Your task to perform on an android device: Open Chrome and go to settings Image 0: 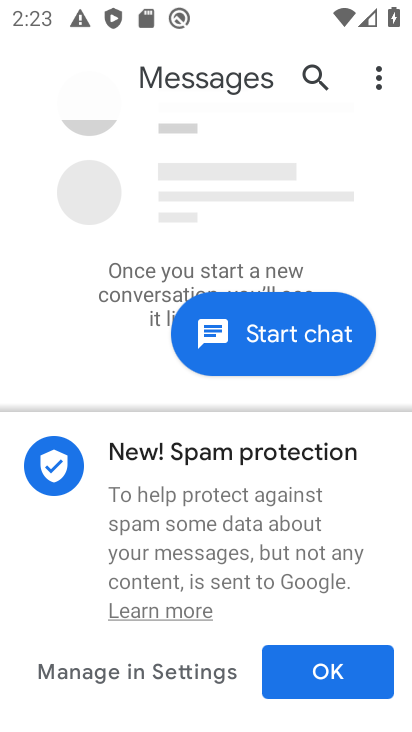
Step 0: press home button
Your task to perform on an android device: Open Chrome and go to settings Image 1: 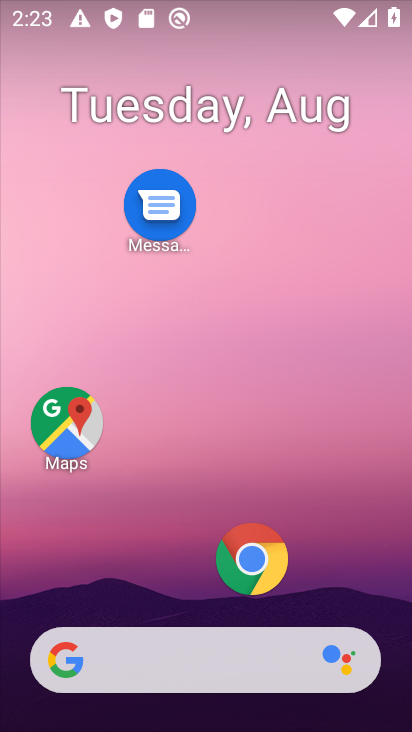
Step 1: click (253, 558)
Your task to perform on an android device: Open Chrome and go to settings Image 2: 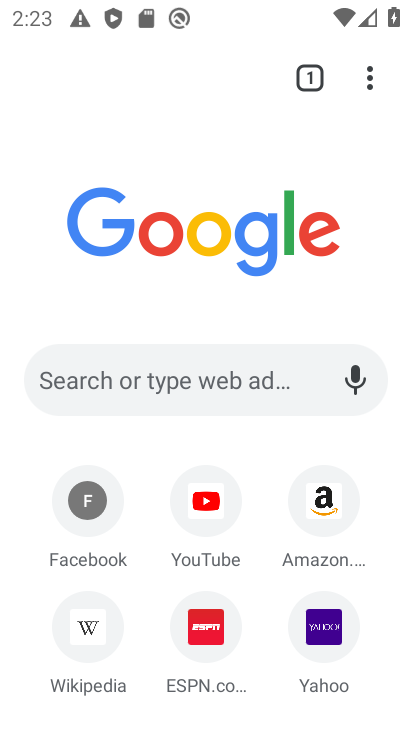
Step 2: click (373, 77)
Your task to perform on an android device: Open Chrome and go to settings Image 3: 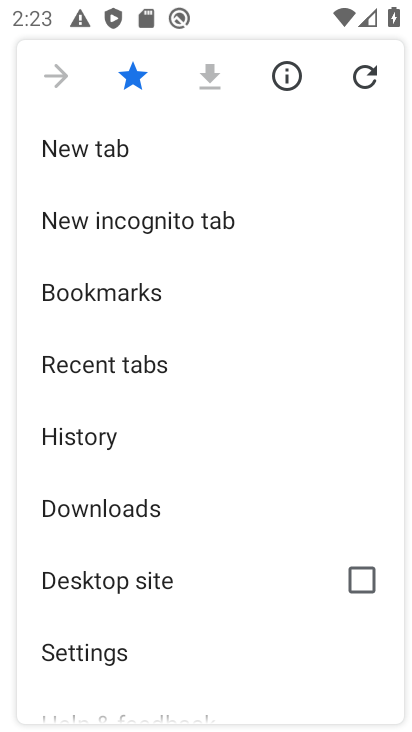
Step 3: click (99, 654)
Your task to perform on an android device: Open Chrome and go to settings Image 4: 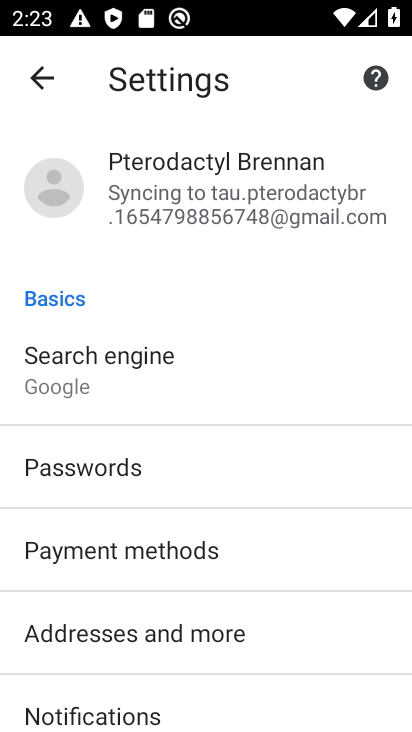
Step 4: task complete